Your task to perform on an android device: Search for seafood restaurants on Google Maps Image 0: 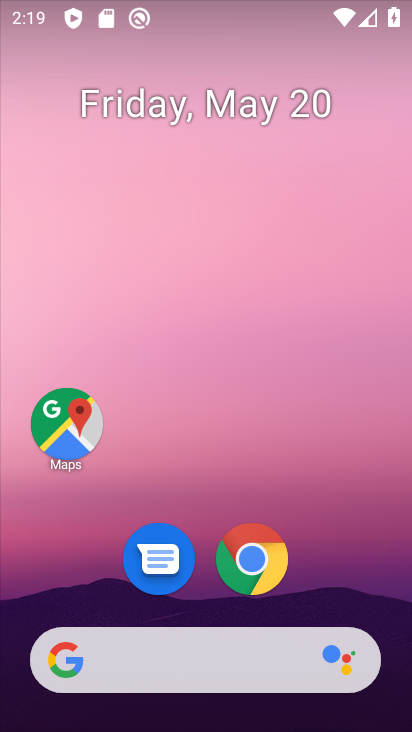
Step 0: click (81, 419)
Your task to perform on an android device: Search for seafood restaurants on Google Maps Image 1: 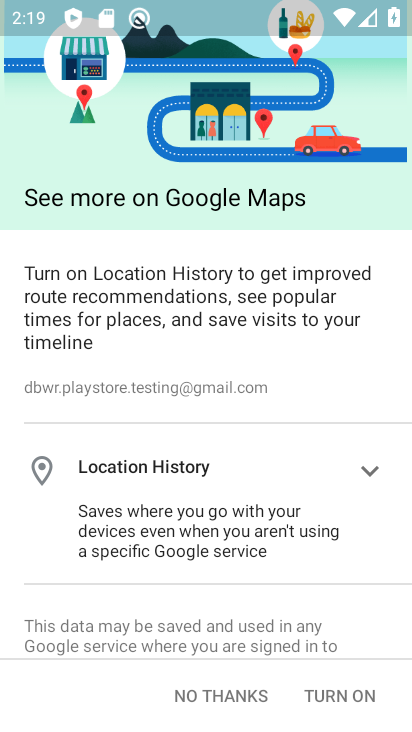
Step 1: click (244, 691)
Your task to perform on an android device: Search for seafood restaurants on Google Maps Image 2: 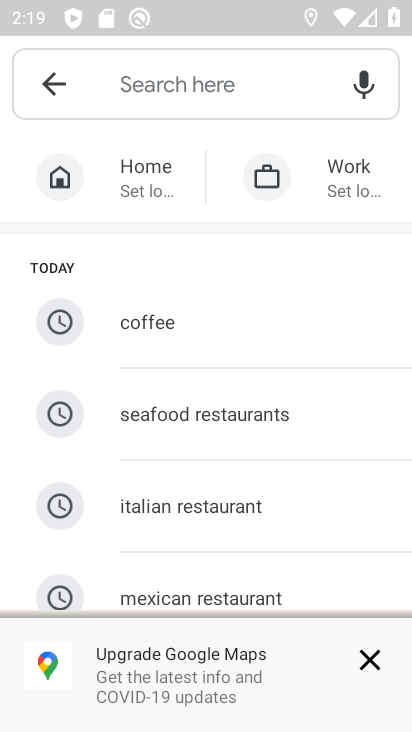
Step 2: click (261, 415)
Your task to perform on an android device: Search for seafood restaurants on Google Maps Image 3: 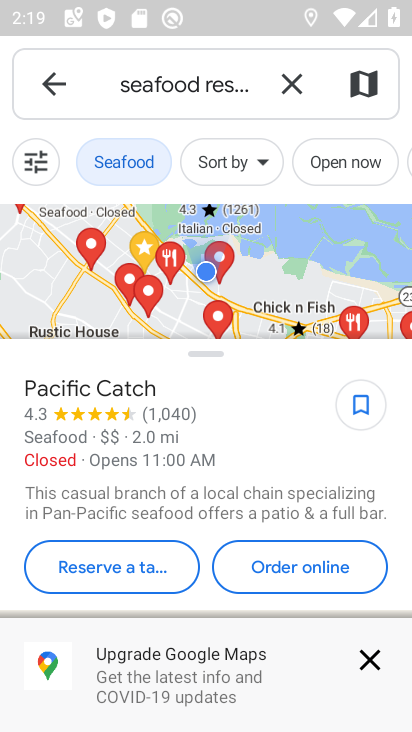
Step 3: task complete